Your task to perform on an android device: toggle notifications settings in the gmail app Image 0: 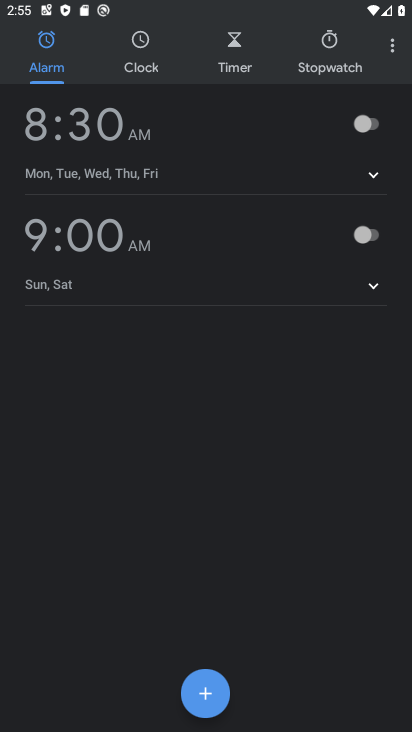
Step 0: press home button
Your task to perform on an android device: toggle notifications settings in the gmail app Image 1: 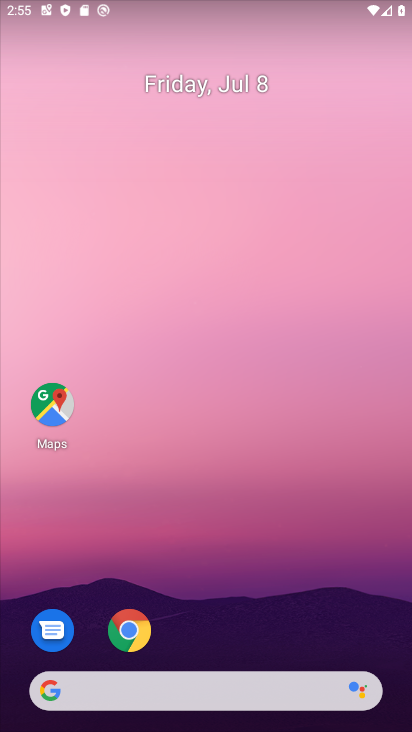
Step 1: drag from (288, 652) to (241, 130)
Your task to perform on an android device: toggle notifications settings in the gmail app Image 2: 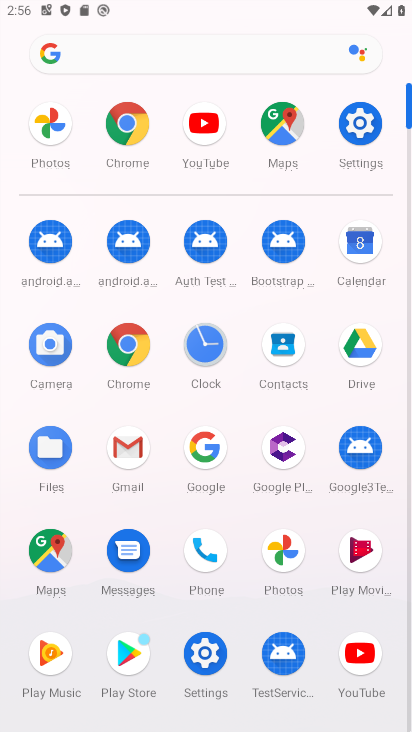
Step 2: click (147, 448)
Your task to perform on an android device: toggle notifications settings in the gmail app Image 3: 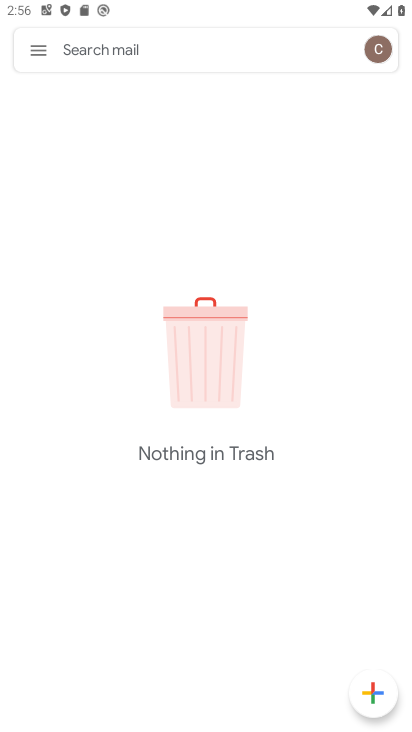
Step 3: click (29, 50)
Your task to perform on an android device: toggle notifications settings in the gmail app Image 4: 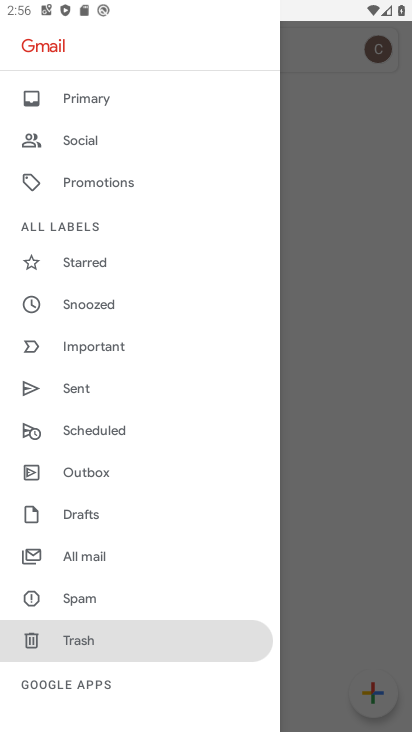
Step 4: drag from (158, 602) to (156, 400)
Your task to perform on an android device: toggle notifications settings in the gmail app Image 5: 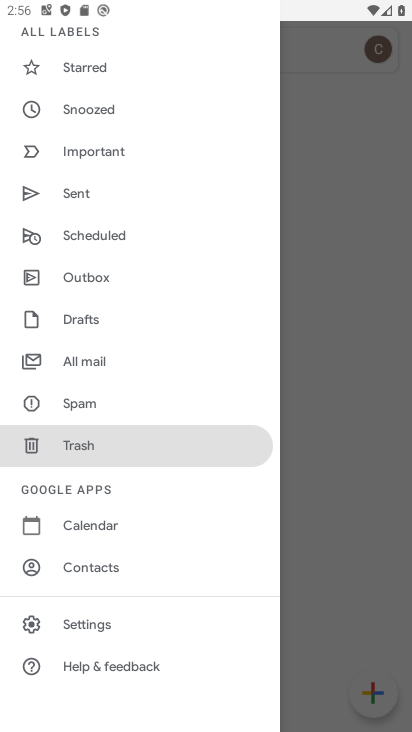
Step 5: click (129, 639)
Your task to perform on an android device: toggle notifications settings in the gmail app Image 6: 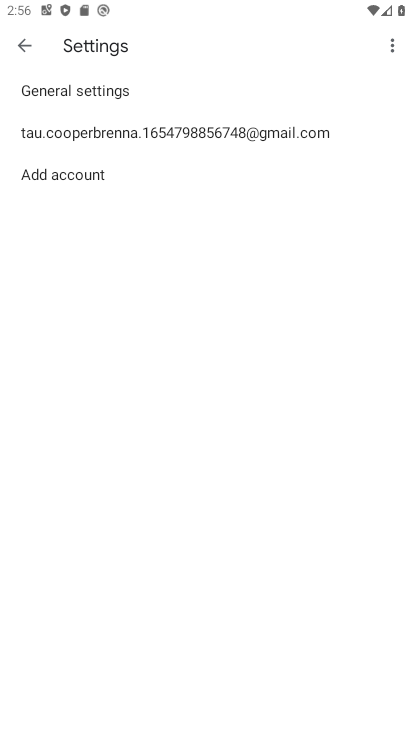
Step 6: click (233, 115)
Your task to perform on an android device: toggle notifications settings in the gmail app Image 7: 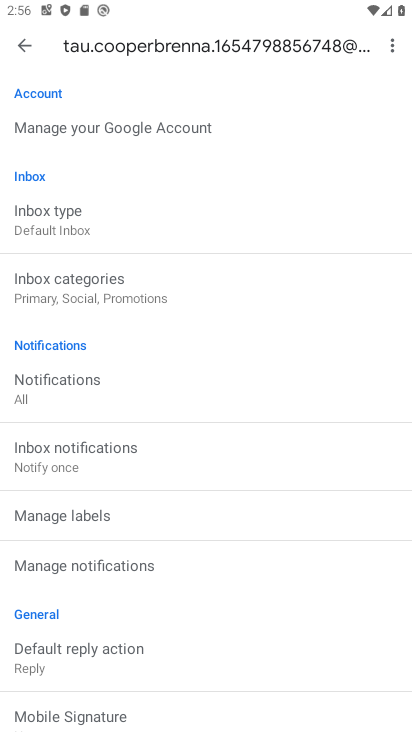
Step 7: task complete